Your task to perform on an android device: create a new album in the google photos Image 0: 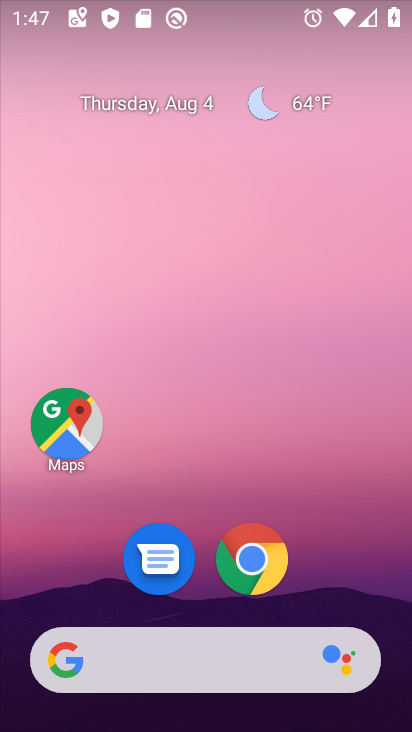
Step 0: press home button
Your task to perform on an android device: create a new album in the google photos Image 1: 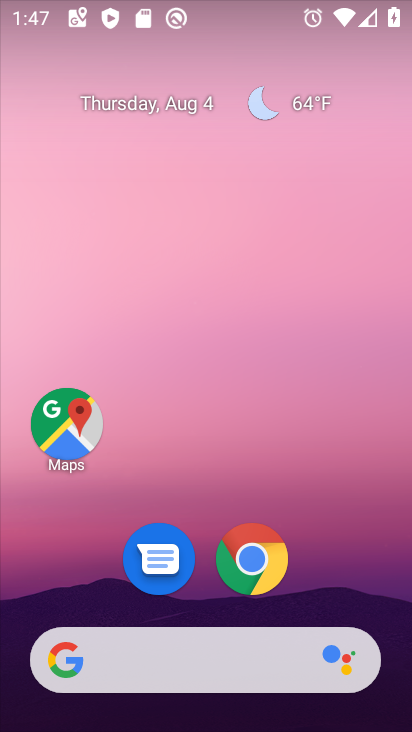
Step 1: drag from (229, 663) to (228, 64)
Your task to perform on an android device: create a new album in the google photos Image 2: 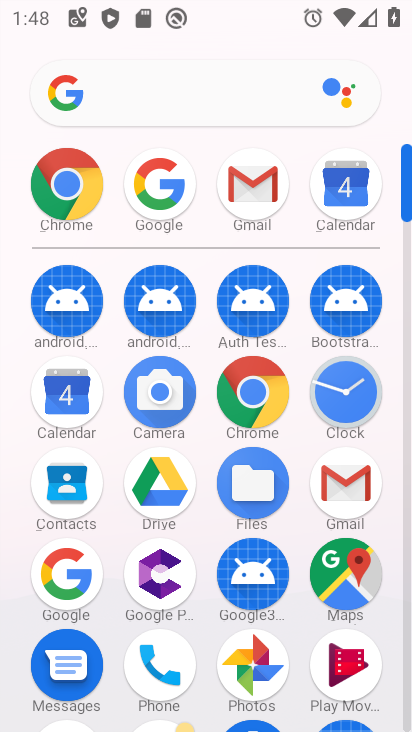
Step 2: click (252, 663)
Your task to perform on an android device: create a new album in the google photos Image 3: 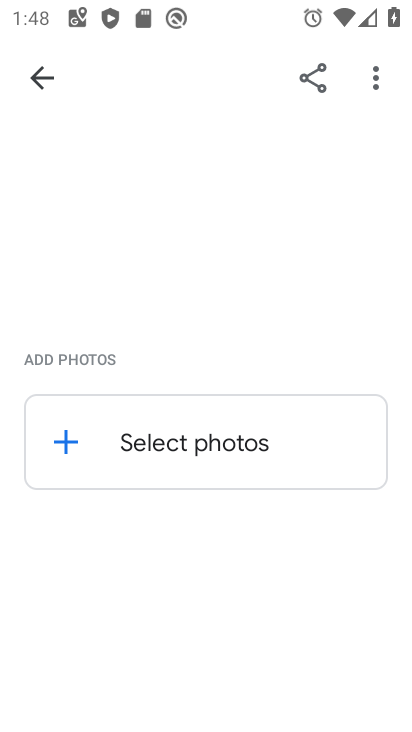
Step 3: click (119, 440)
Your task to perform on an android device: create a new album in the google photos Image 4: 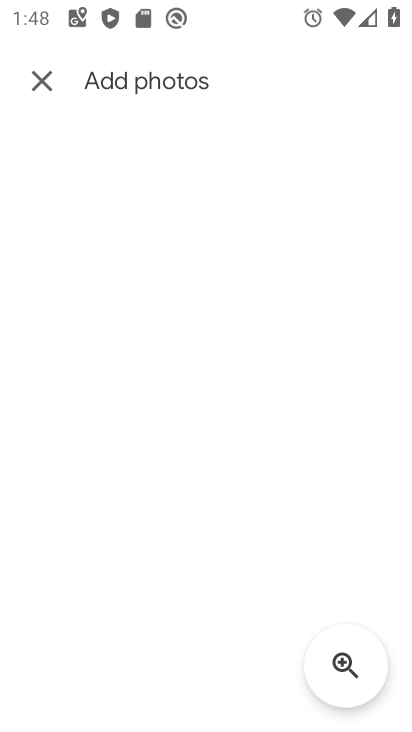
Step 4: task complete